Your task to perform on an android device: Open the phone app and click the voicemail tab. Image 0: 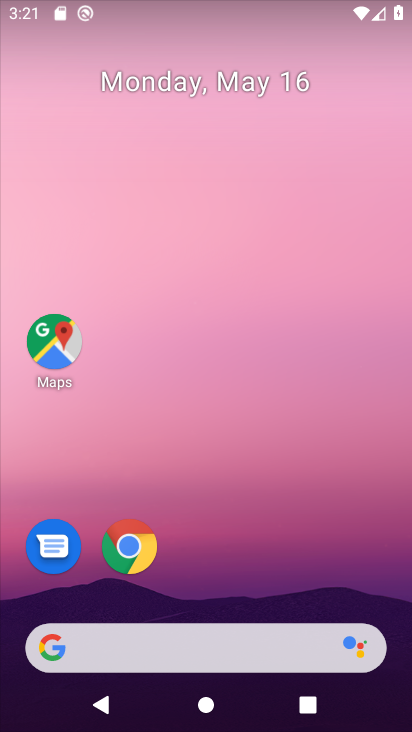
Step 0: drag from (350, 592) to (357, 105)
Your task to perform on an android device: Open the phone app and click the voicemail tab. Image 1: 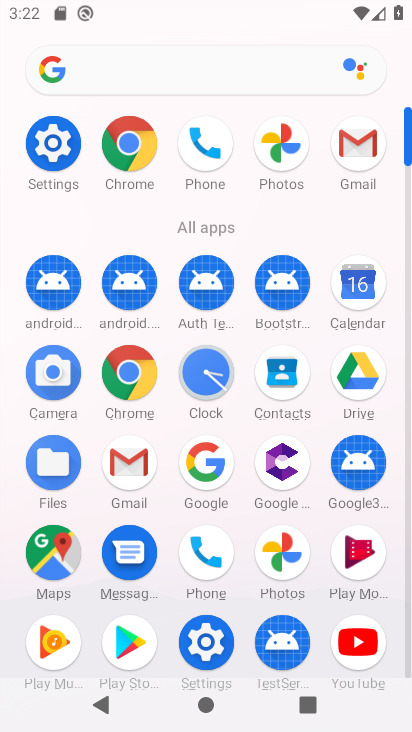
Step 1: click (204, 153)
Your task to perform on an android device: Open the phone app and click the voicemail tab. Image 2: 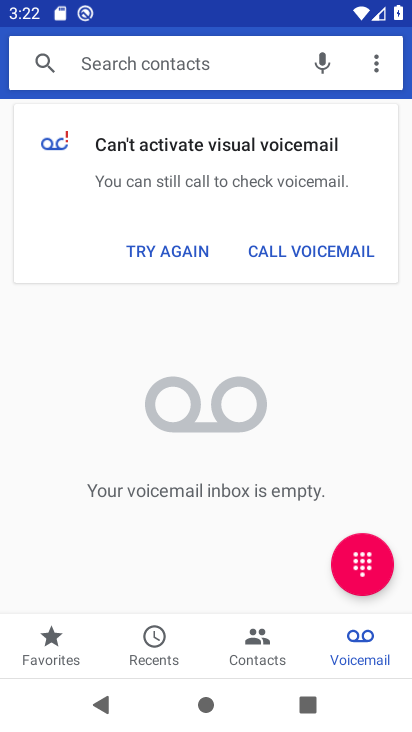
Step 2: task complete